Your task to perform on an android device: Open the web browser Image 0: 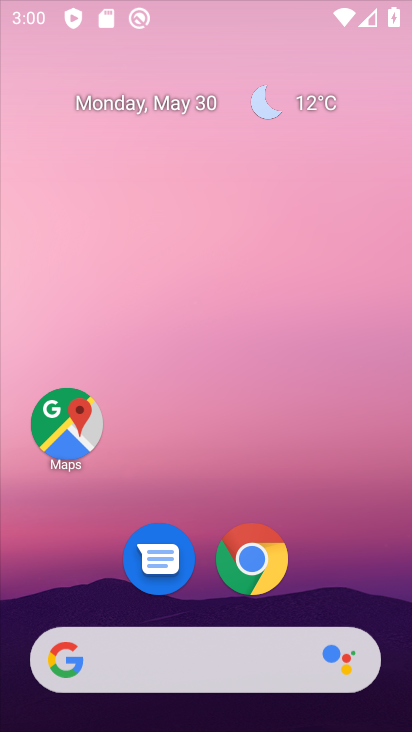
Step 0: drag from (67, 595) to (232, 74)
Your task to perform on an android device: Open the web browser Image 1: 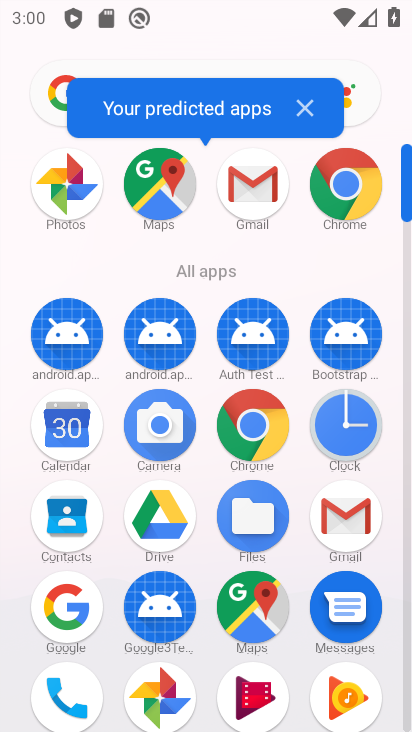
Step 1: click (53, 623)
Your task to perform on an android device: Open the web browser Image 2: 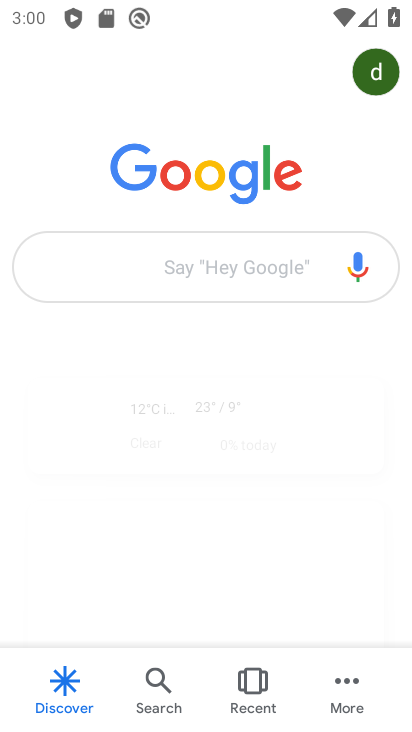
Step 2: task complete